Your task to perform on an android device: Open accessibility settings Image 0: 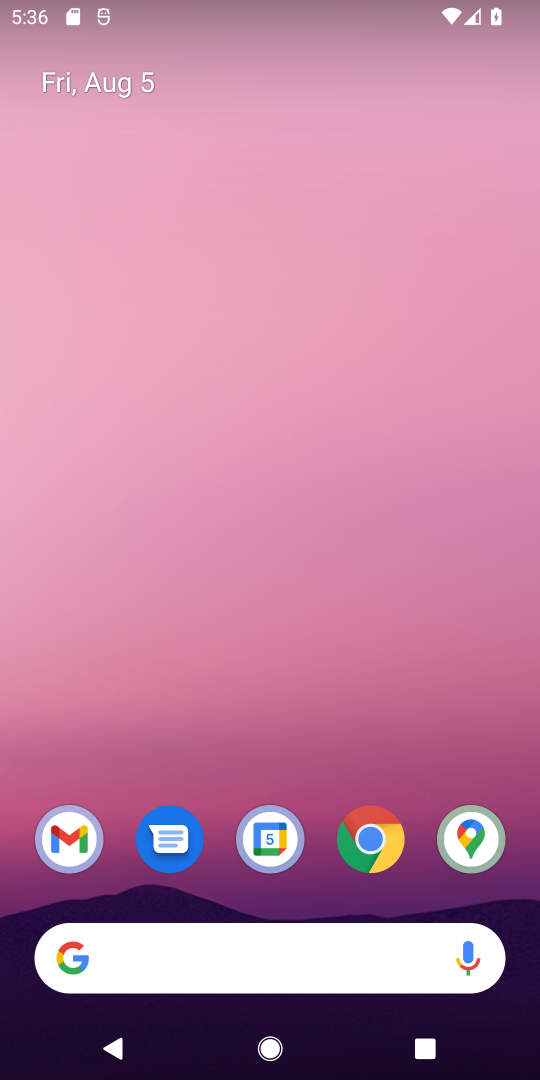
Step 0: drag from (271, 754) to (252, 146)
Your task to perform on an android device: Open accessibility settings Image 1: 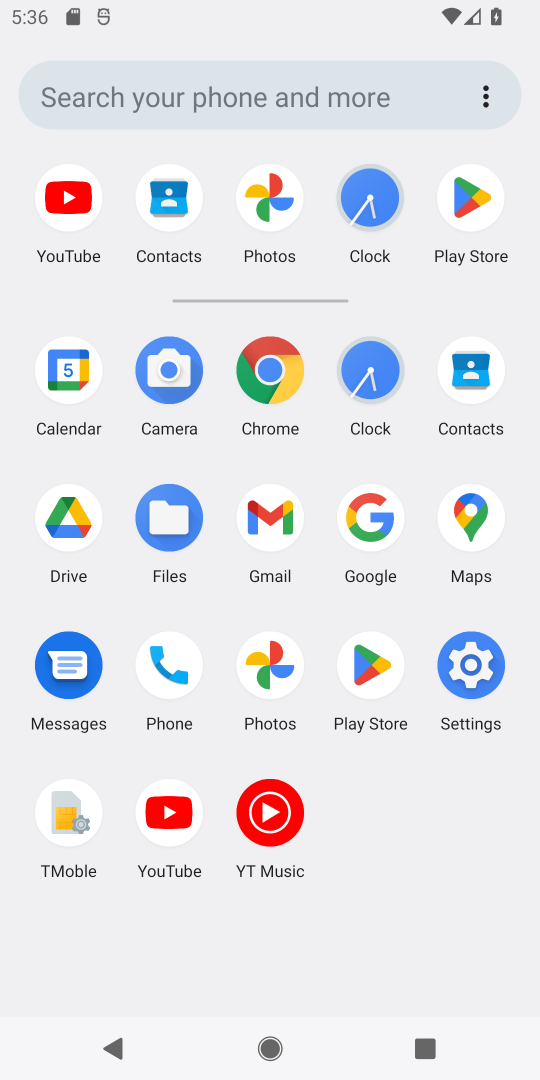
Step 1: click (448, 654)
Your task to perform on an android device: Open accessibility settings Image 2: 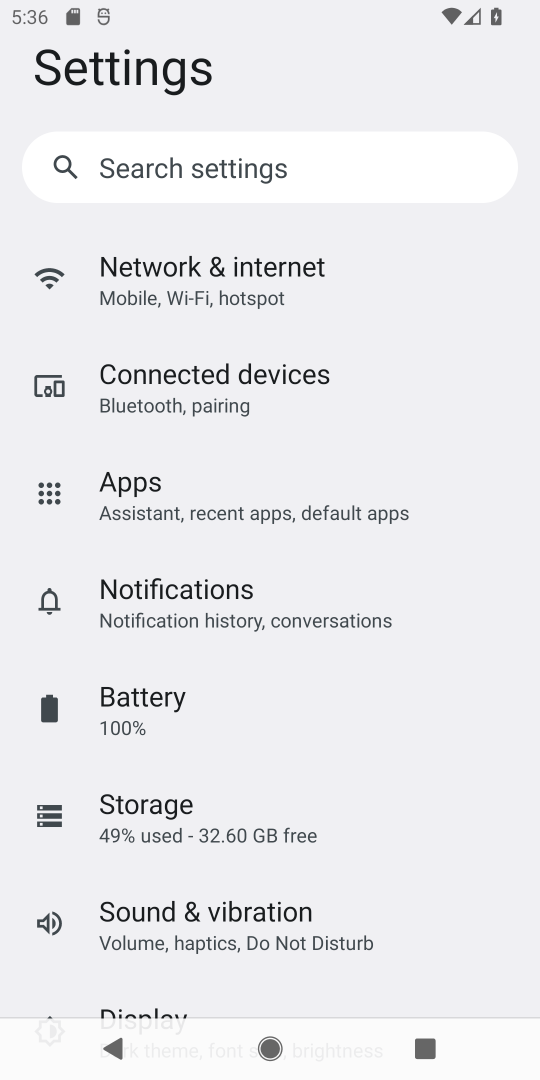
Step 2: drag from (273, 865) to (273, 209)
Your task to perform on an android device: Open accessibility settings Image 3: 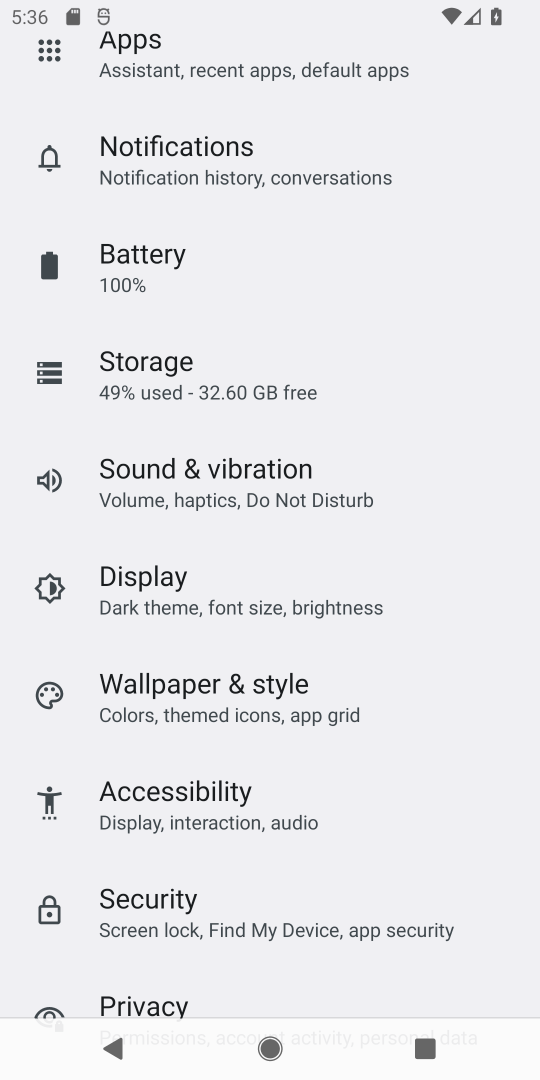
Step 3: click (235, 821)
Your task to perform on an android device: Open accessibility settings Image 4: 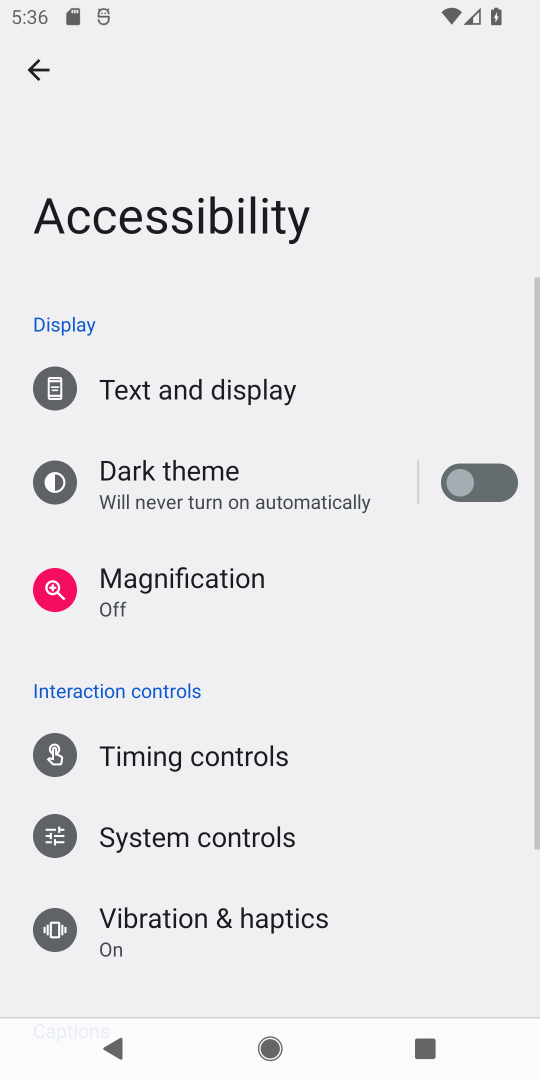
Step 4: task complete